Your task to perform on an android device: Search for the best gaming monitor on Best Buy Image 0: 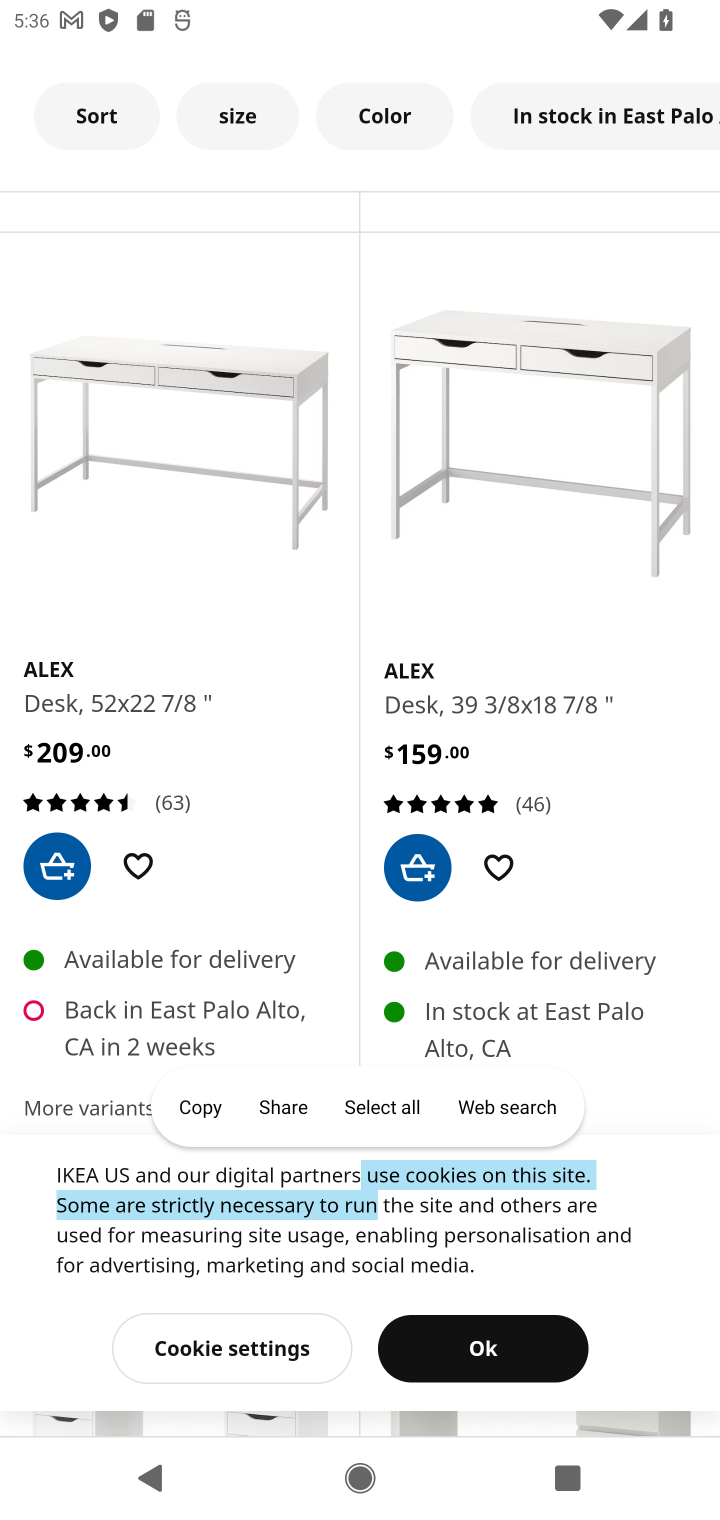
Step 0: press home button
Your task to perform on an android device: Search for the best gaming monitor on Best Buy Image 1: 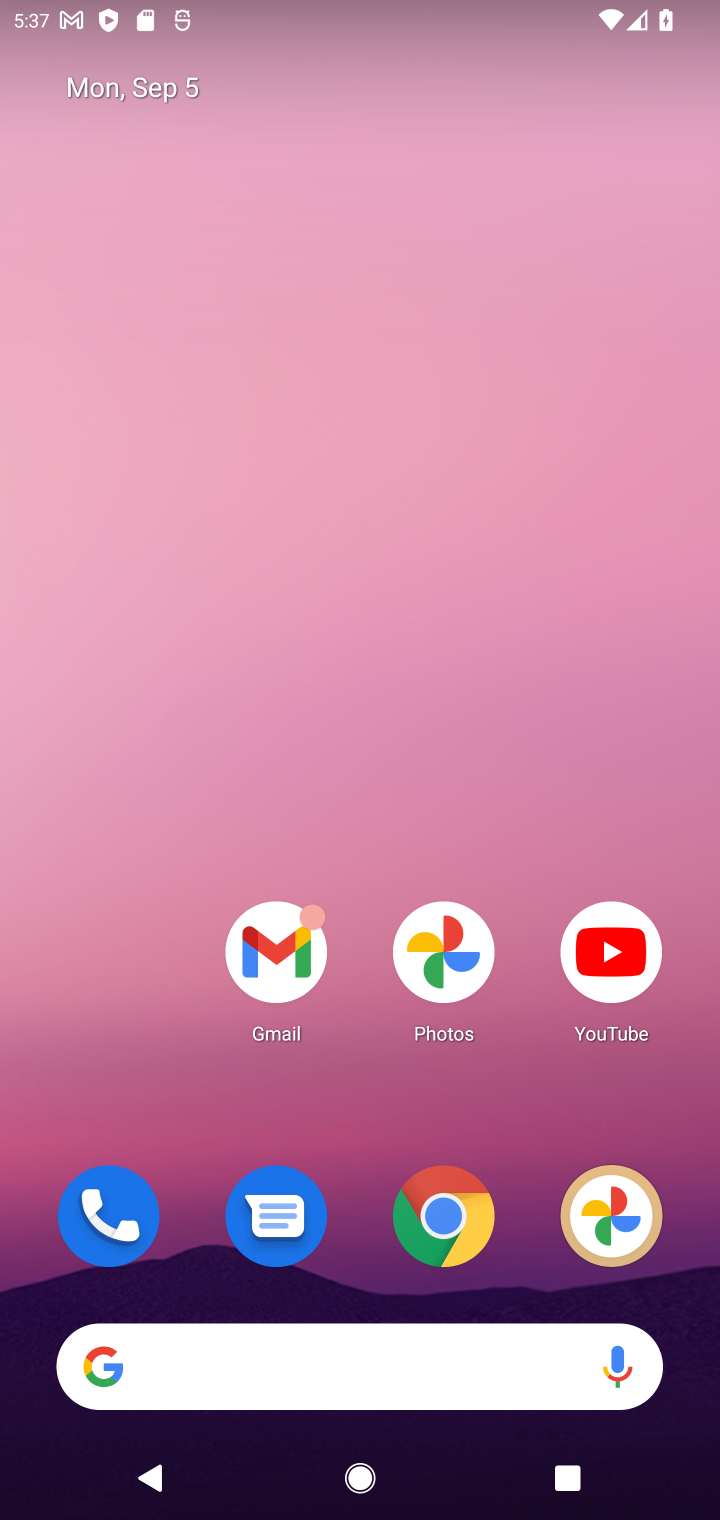
Step 1: drag from (352, 1133) to (437, 0)
Your task to perform on an android device: Search for the best gaming monitor on Best Buy Image 2: 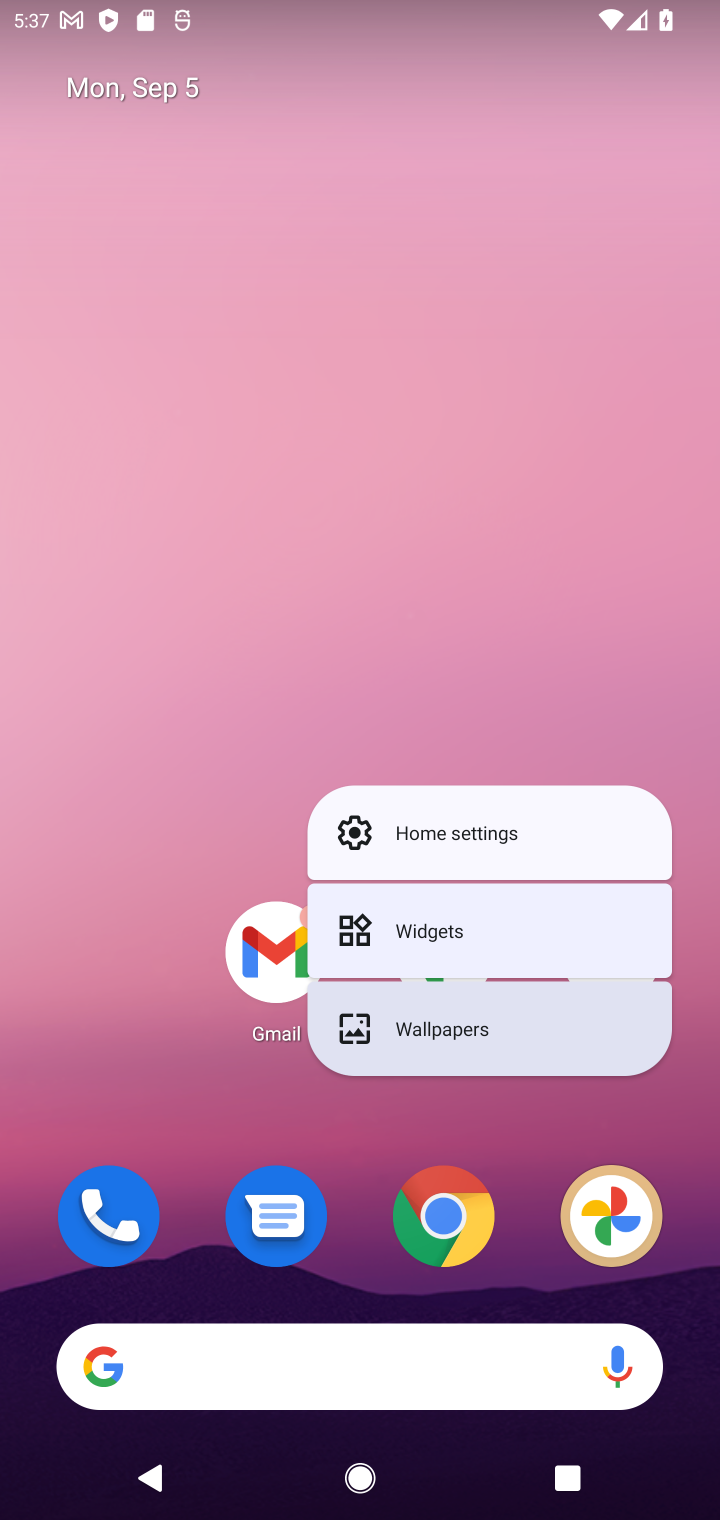
Step 2: click (160, 973)
Your task to perform on an android device: Search for the best gaming monitor on Best Buy Image 3: 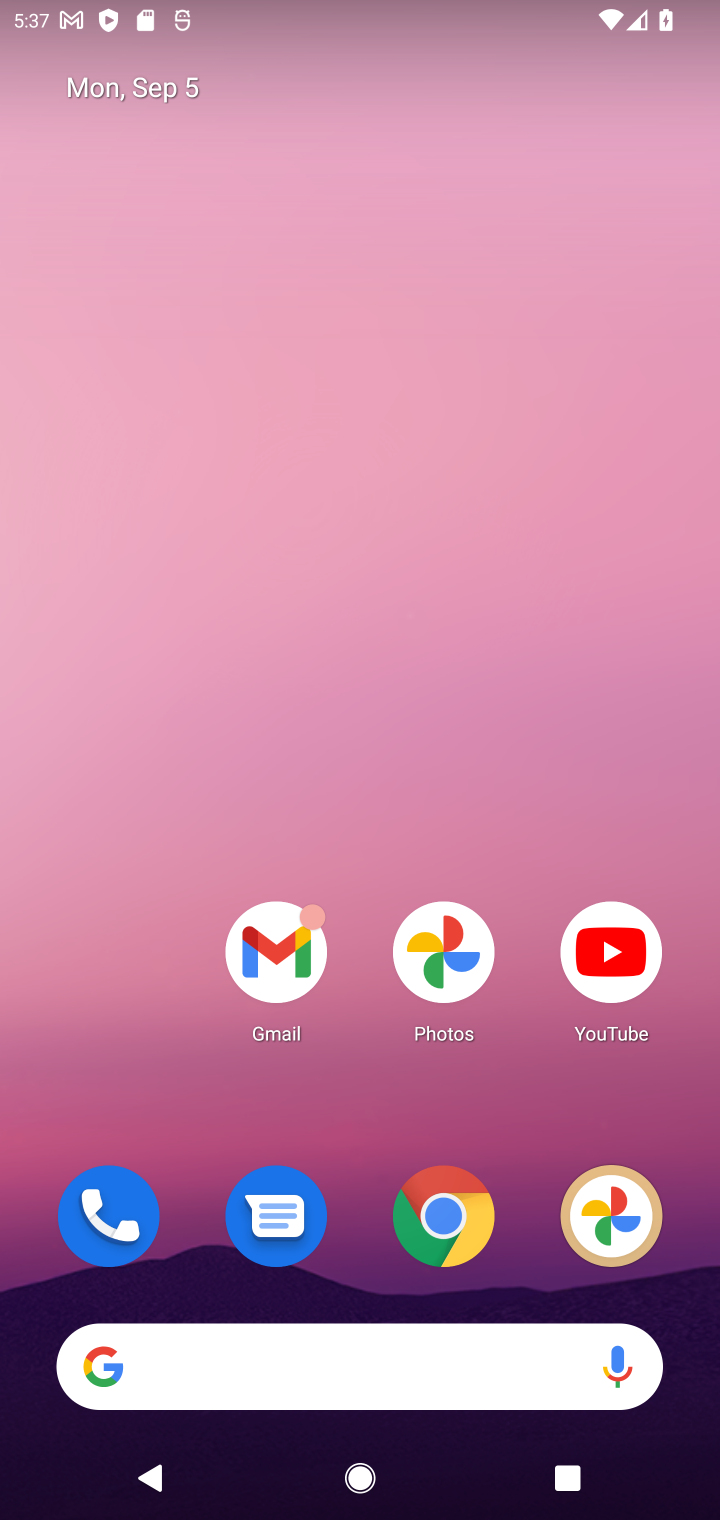
Step 3: drag from (368, 1160) to (354, 4)
Your task to perform on an android device: Search for the best gaming monitor on Best Buy Image 4: 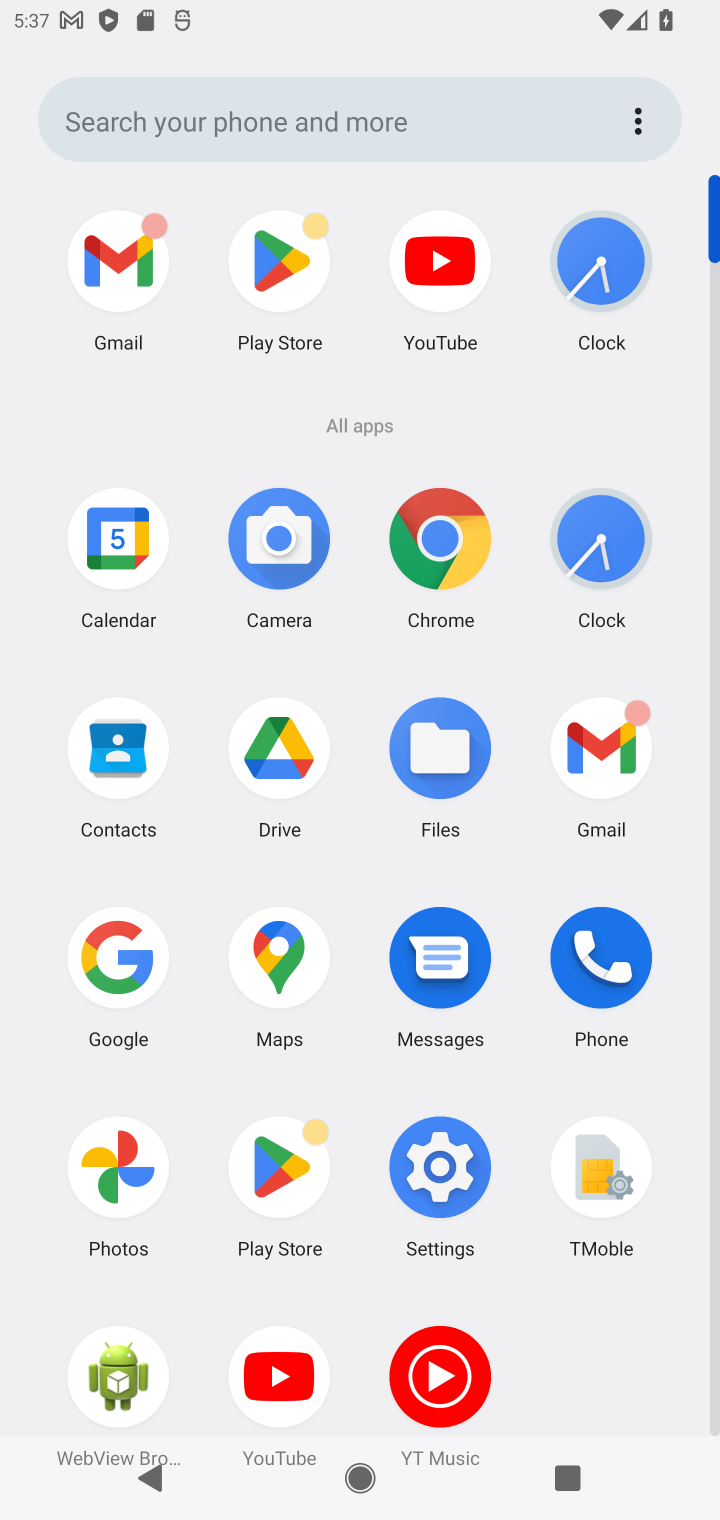
Step 4: click (440, 515)
Your task to perform on an android device: Search for the best gaming monitor on Best Buy Image 5: 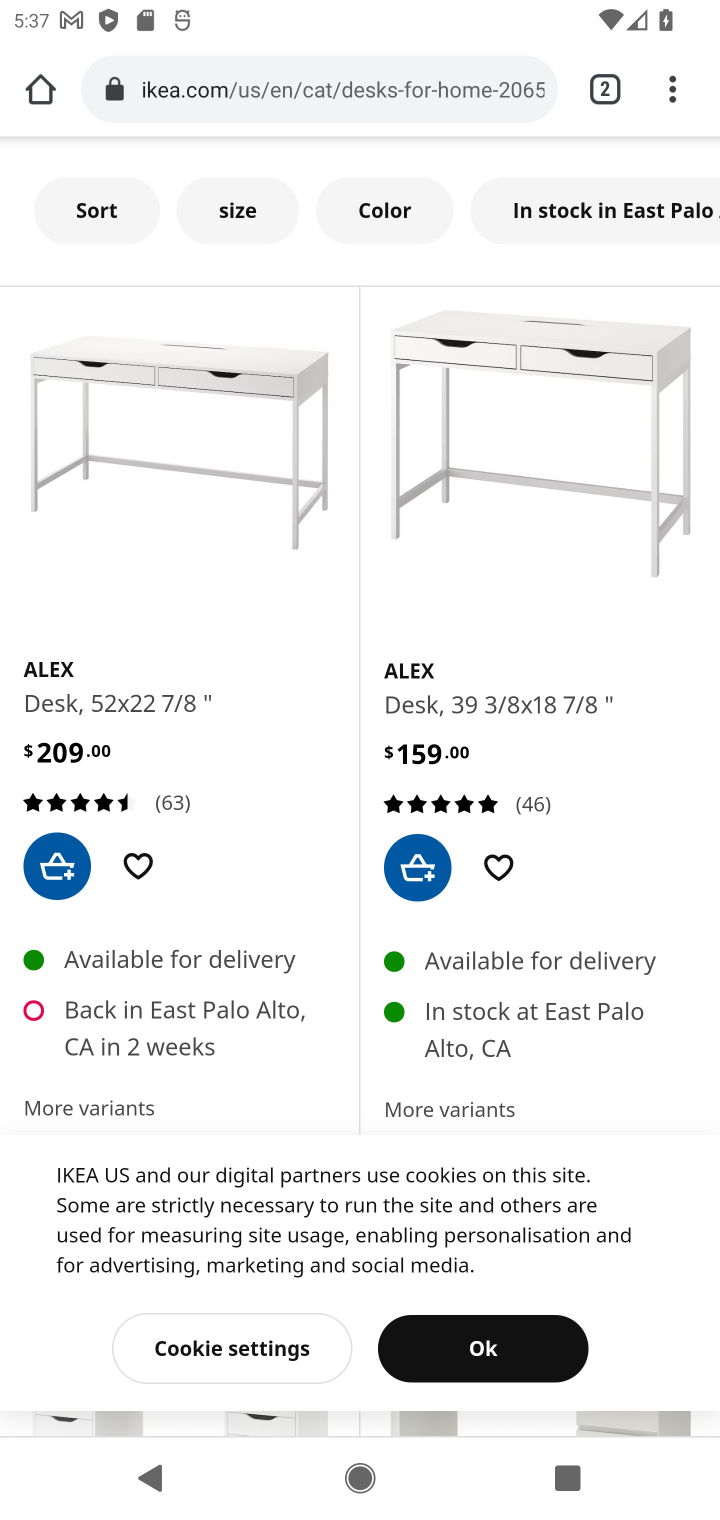
Step 5: click (599, 92)
Your task to perform on an android device: Search for the best gaming monitor on Best Buy Image 6: 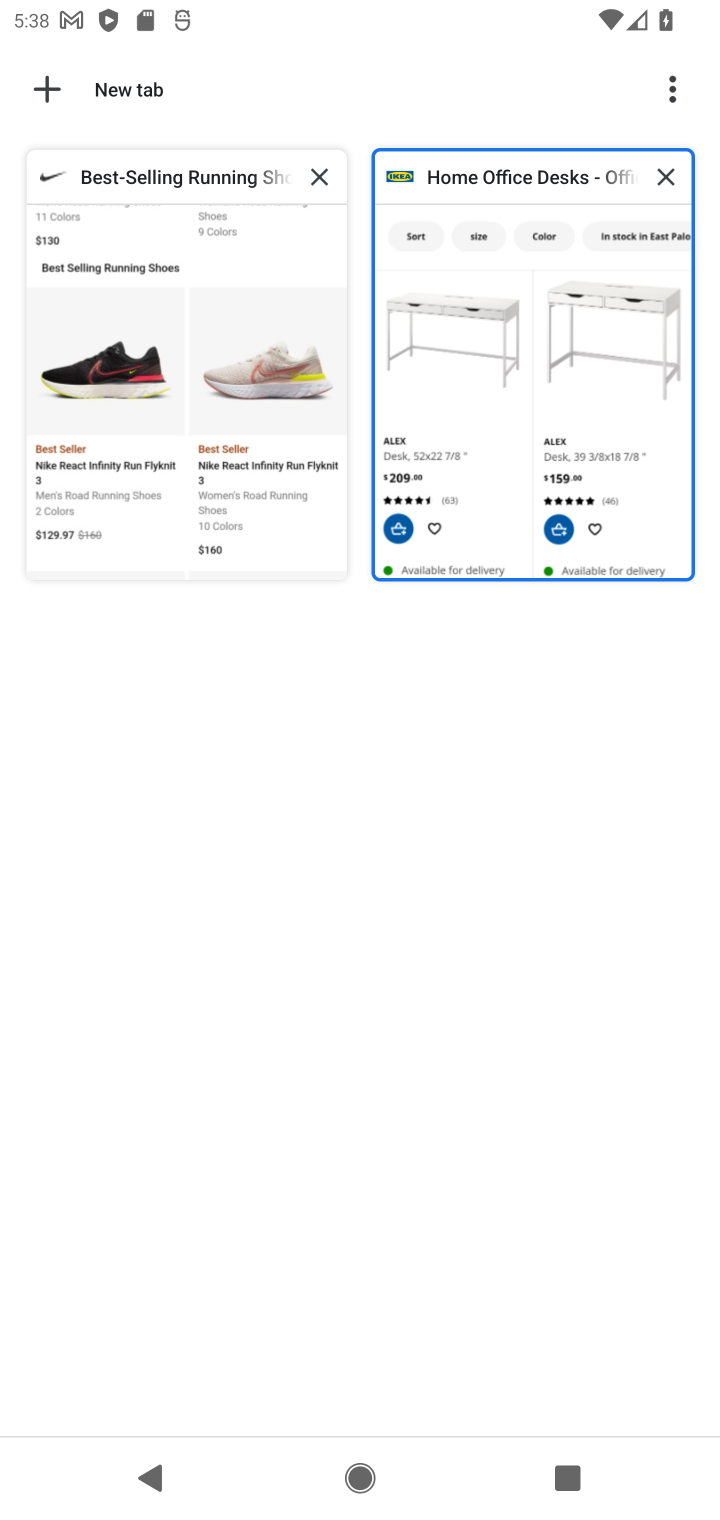
Step 6: click (664, 178)
Your task to perform on an android device: Search for the best gaming monitor on Best Buy Image 7: 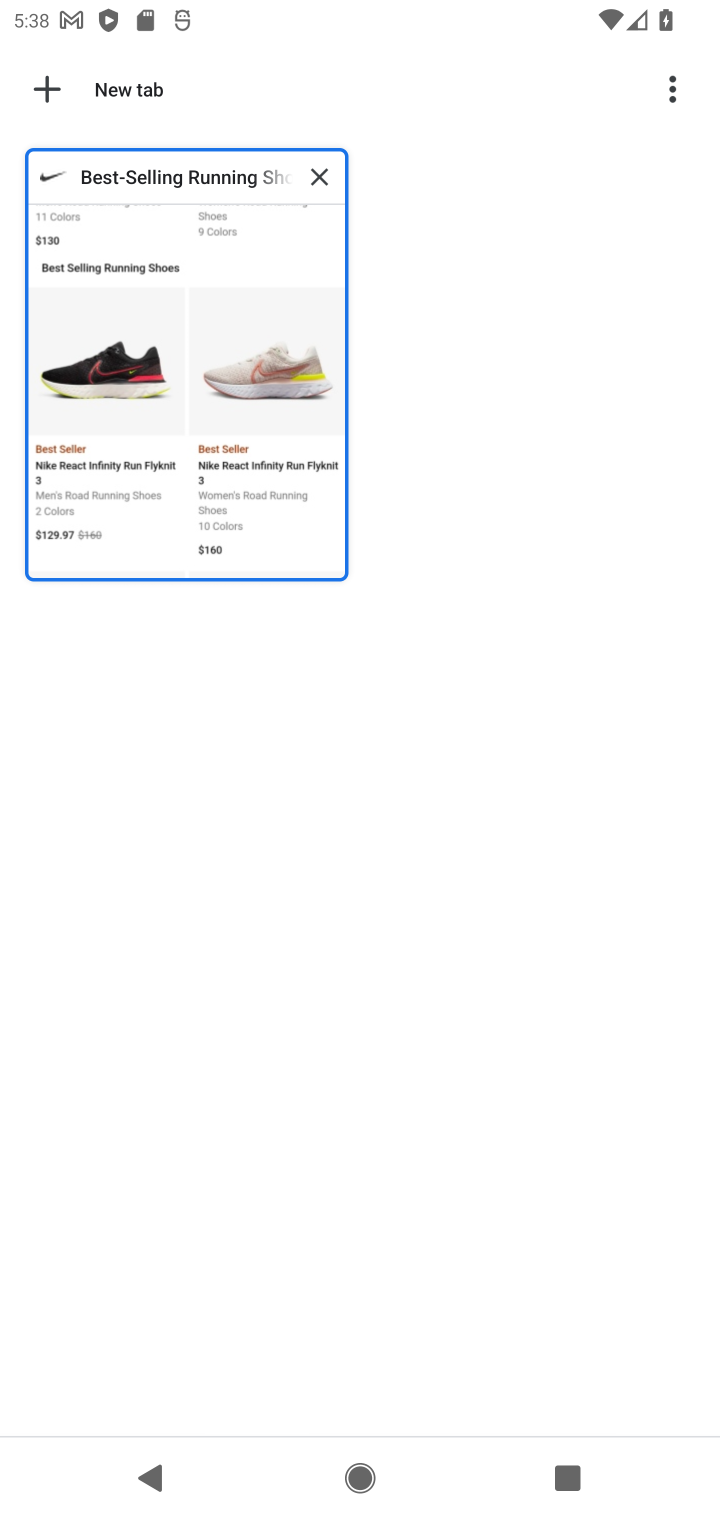
Step 7: click (320, 172)
Your task to perform on an android device: Search for the best gaming monitor on Best Buy Image 8: 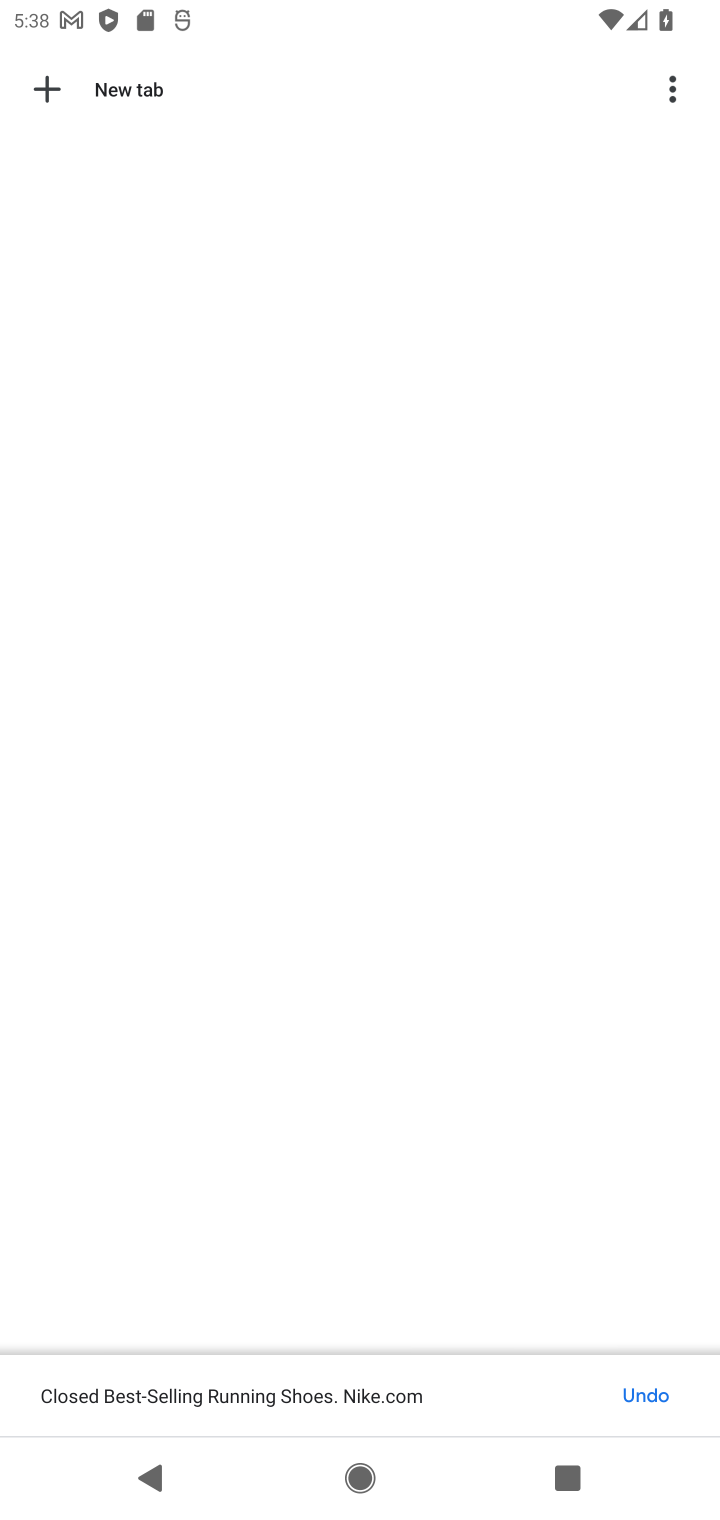
Step 8: click (35, 83)
Your task to perform on an android device: Search for the best gaming monitor on Best Buy Image 9: 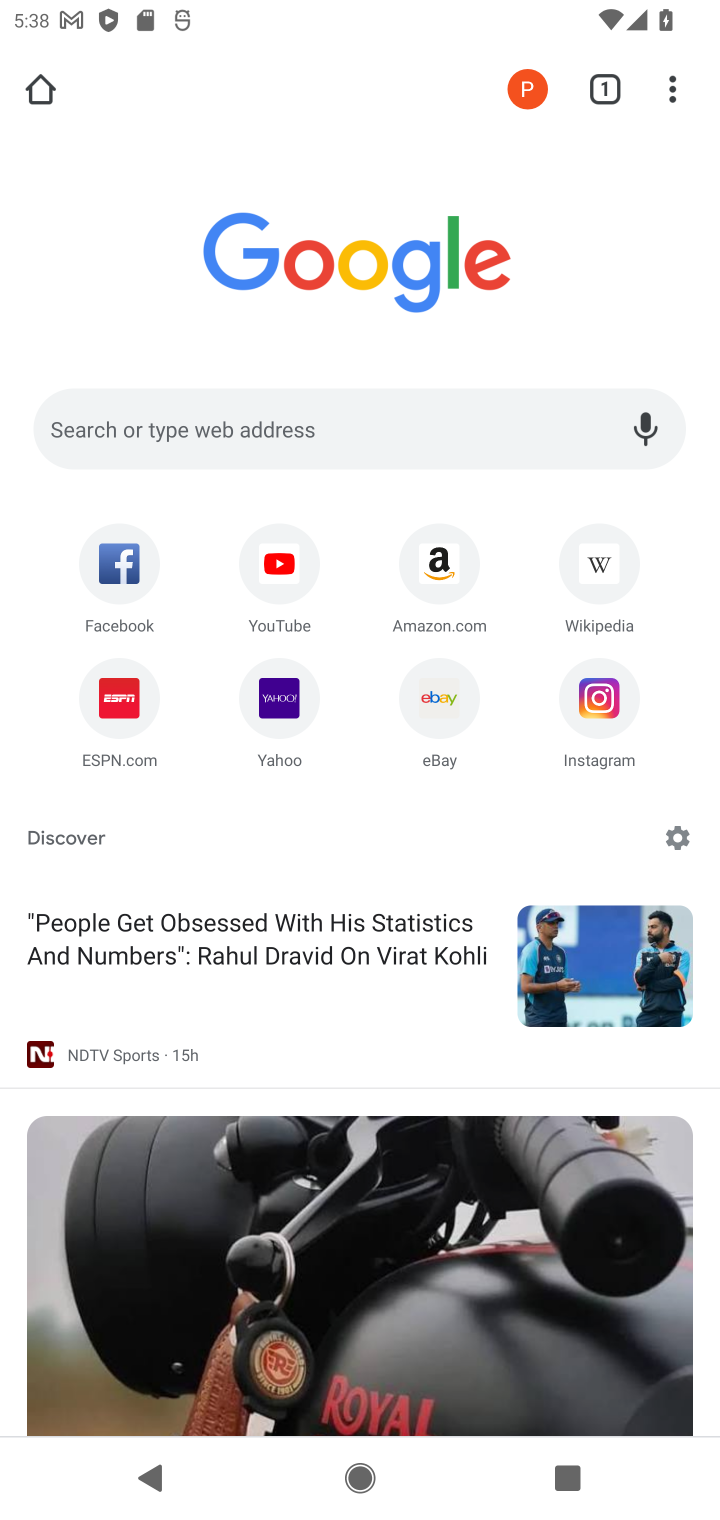
Step 9: click (178, 435)
Your task to perform on an android device: Search for the best gaming monitor on Best Buy Image 10: 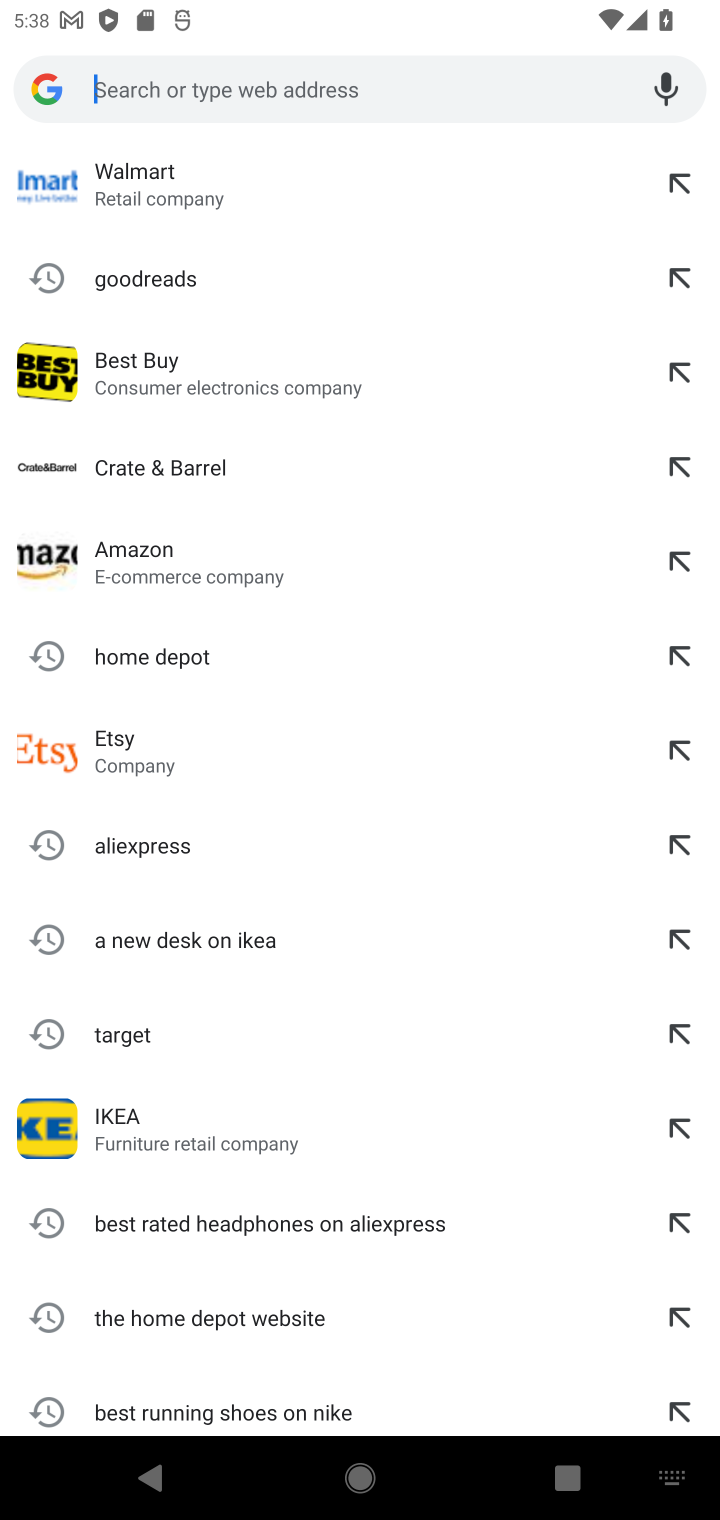
Step 10: type " best gaming monitor on Best Buy"
Your task to perform on an android device: Search for the best gaming monitor on Best Buy Image 11: 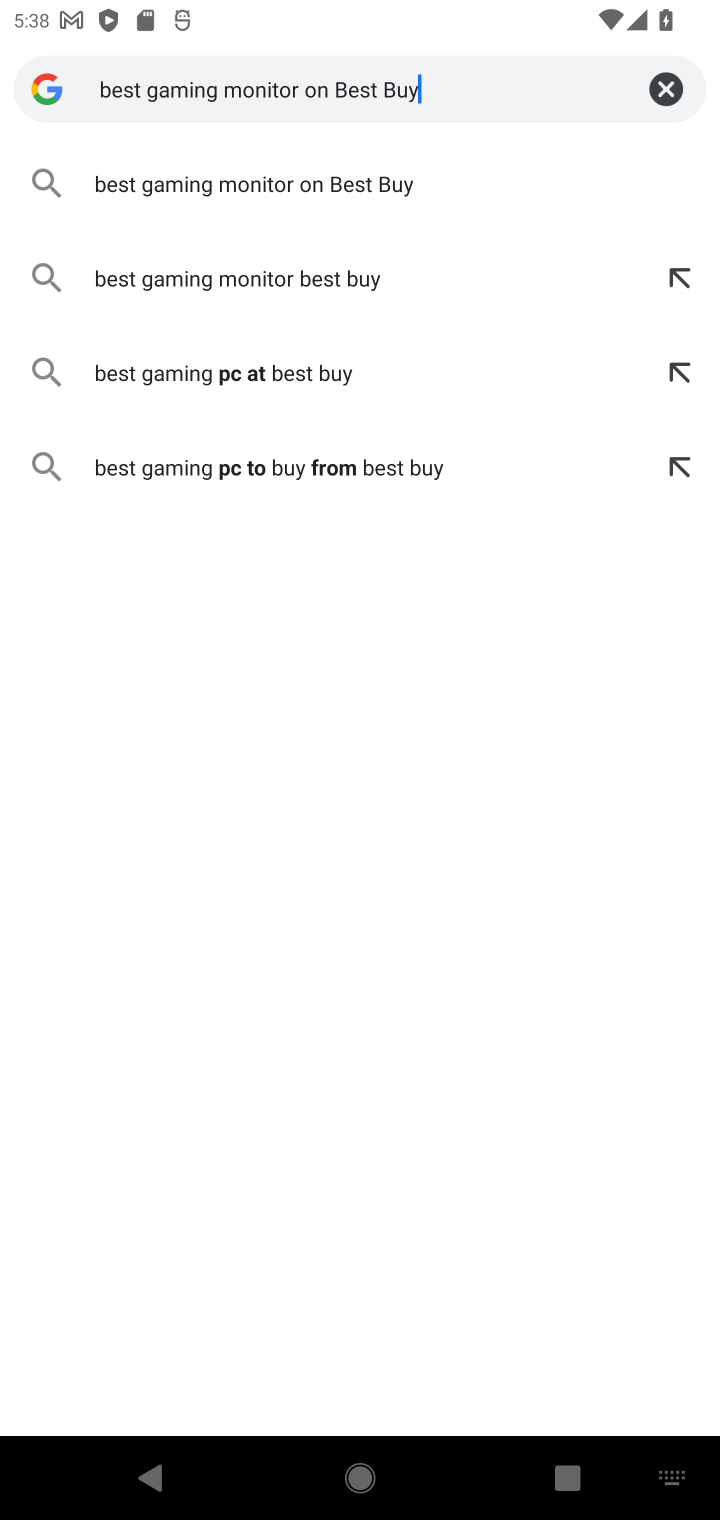
Step 11: click (321, 193)
Your task to perform on an android device: Search for the best gaming monitor on Best Buy Image 12: 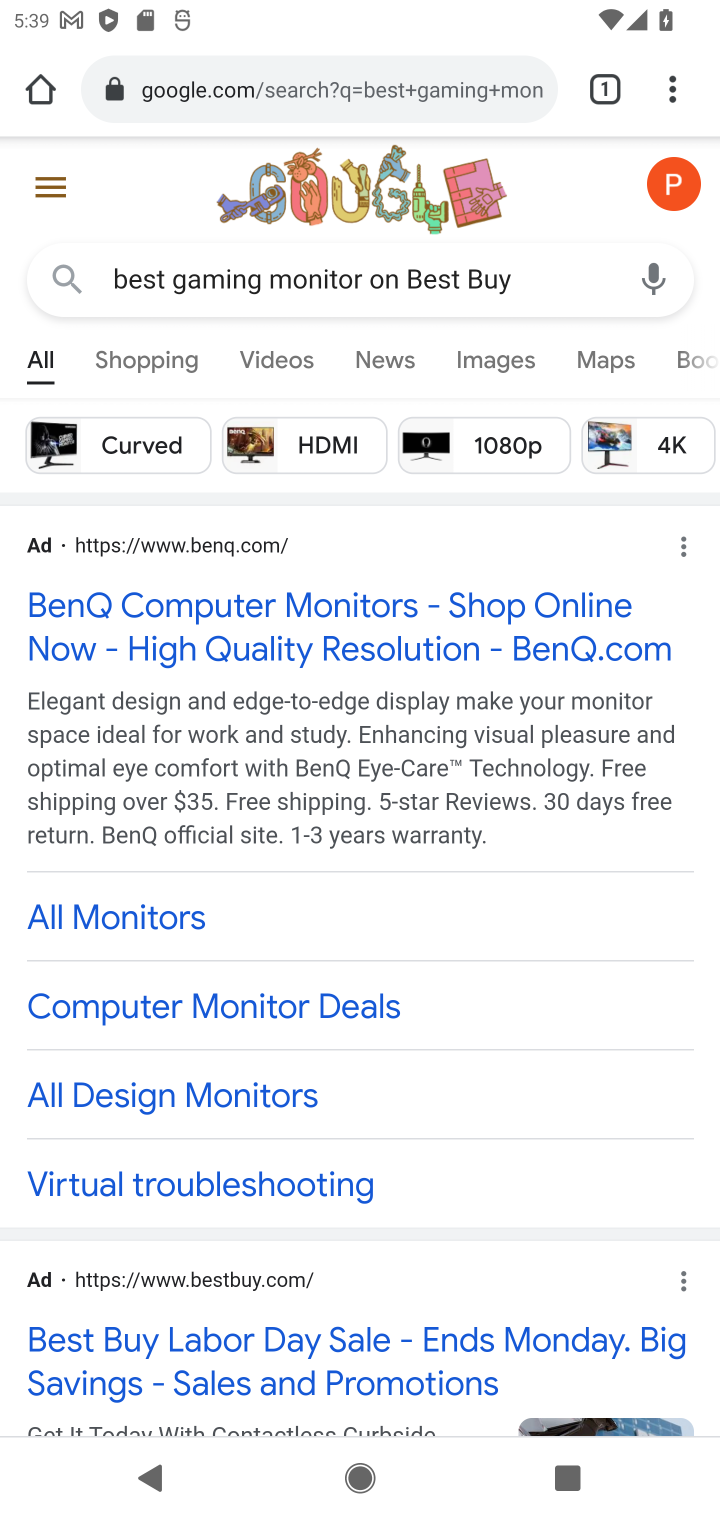
Step 12: drag from (343, 1347) to (344, 713)
Your task to perform on an android device: Search for the best gaming monitor on Best Buy Image 13: 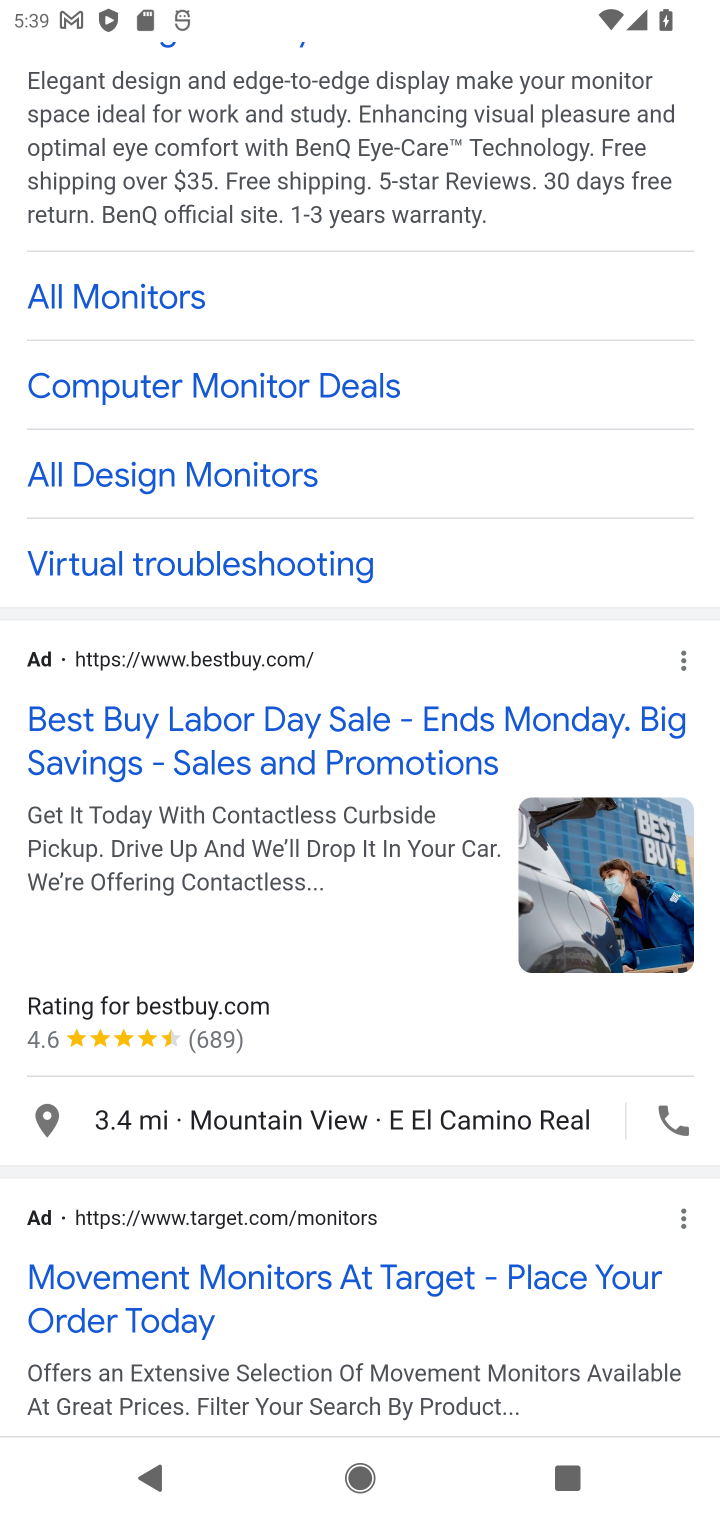
Step 13: drag from (427, 1235) to (326, 308)
Your task to perform on an android device: Search for the best gaming monitor on Best Buy Image 14: 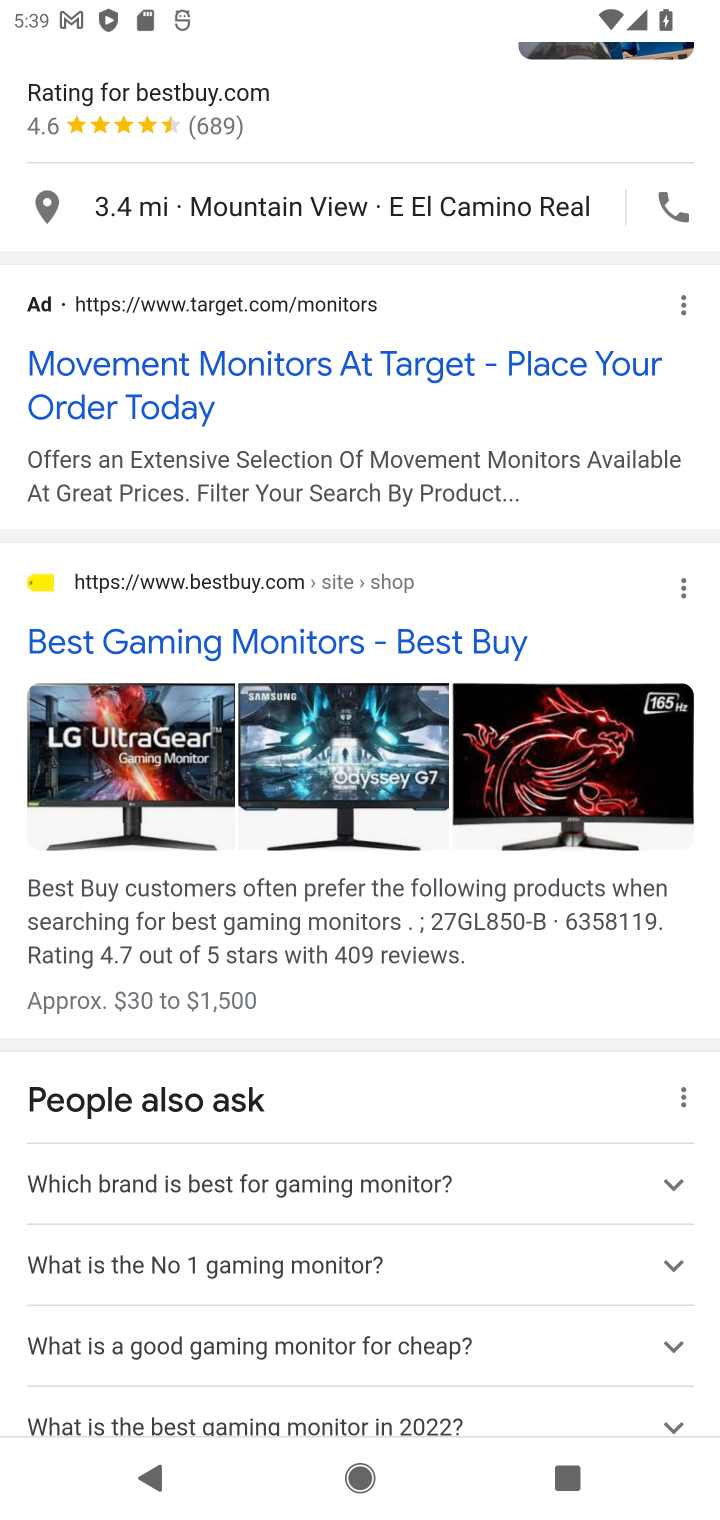
Step 14: click (306, 638)
Your task to perform on an android device: Search for the best gaming monitor on Best Buy Image 15: 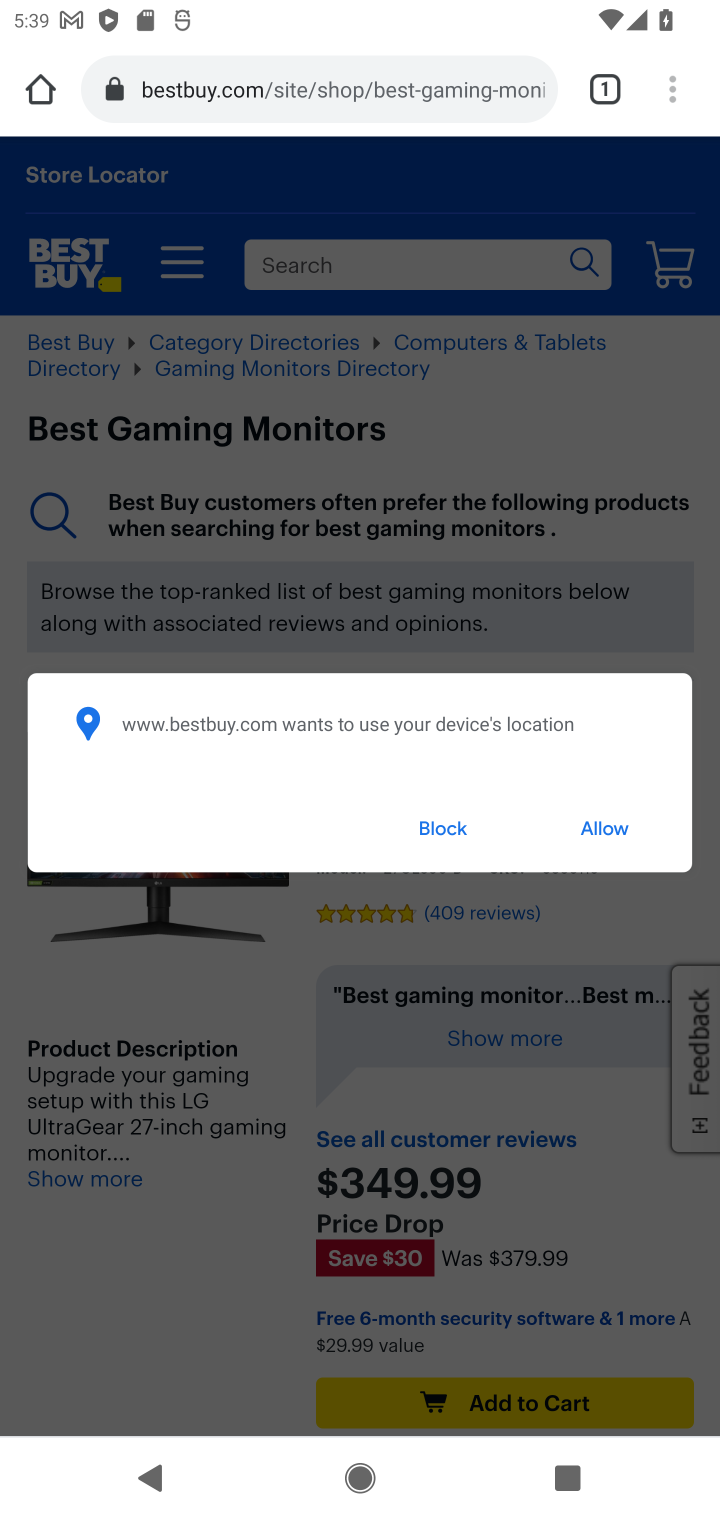
Step 15: click (591, 848)
Your task to perform on an android device: Search for the best gaming monitor on Best Buy Image 16: 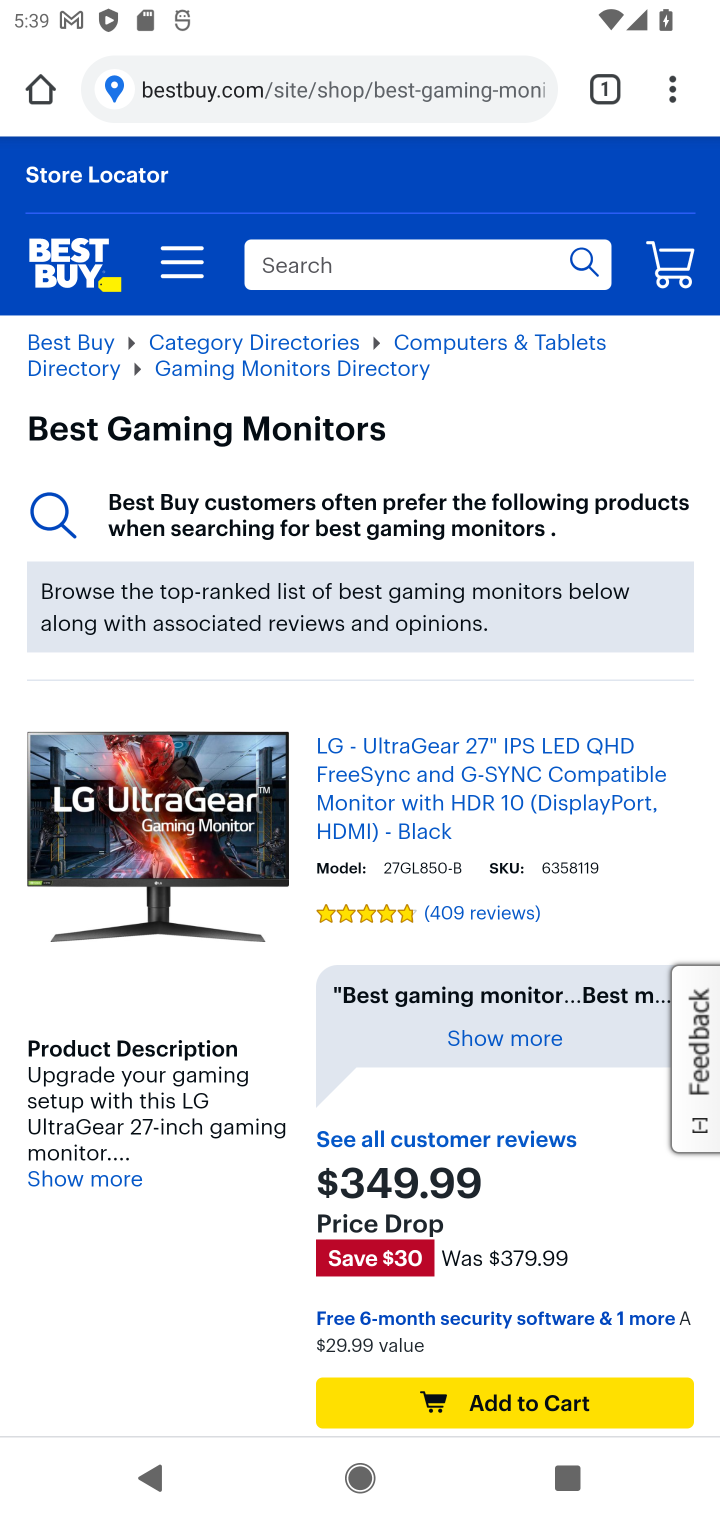
Step 16: click (348, 147)
Your task to perform on an android device: Search for the best gaming monitor on Best Buy Image 17: 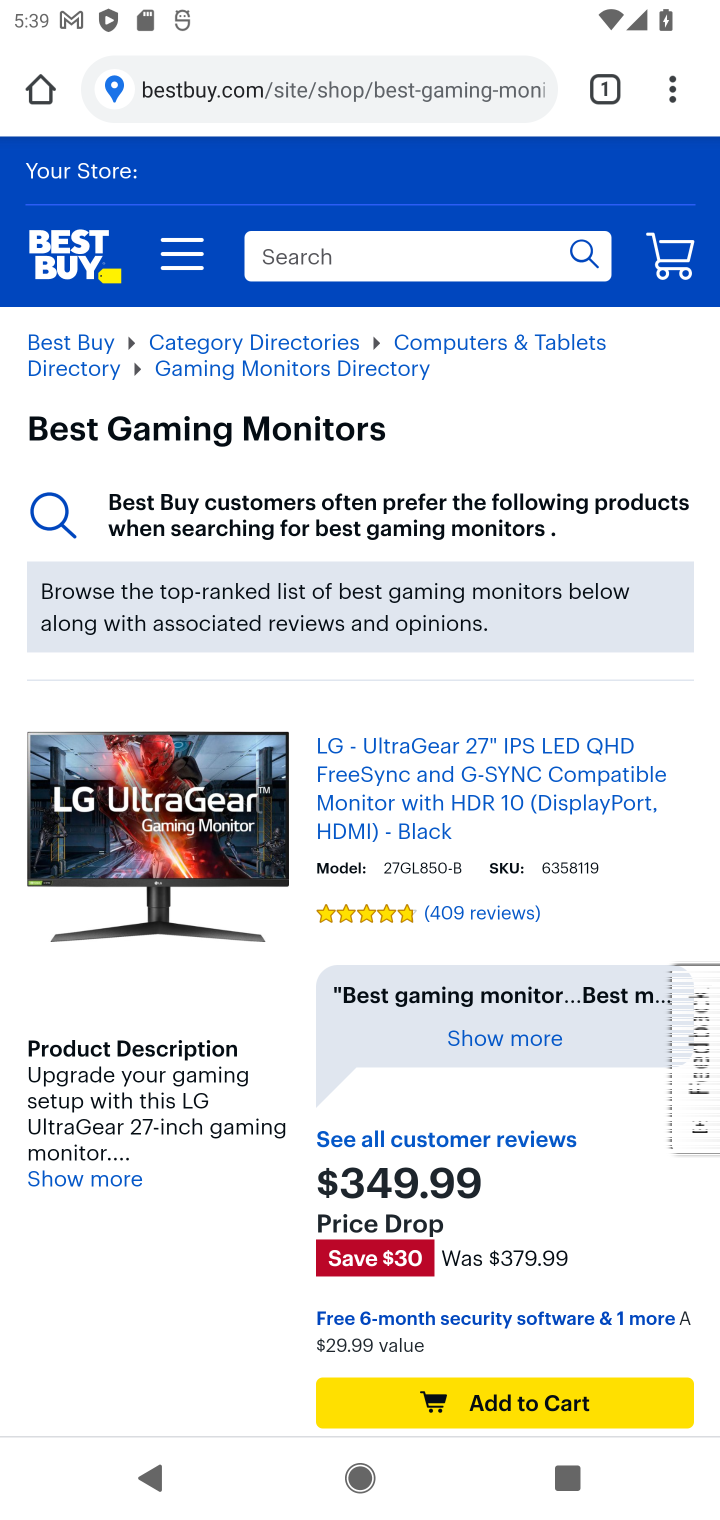
Step 17: click (346, 131)
Your task to perform on an android device: Search for the best gaming monitor on Best Buy Image 18: 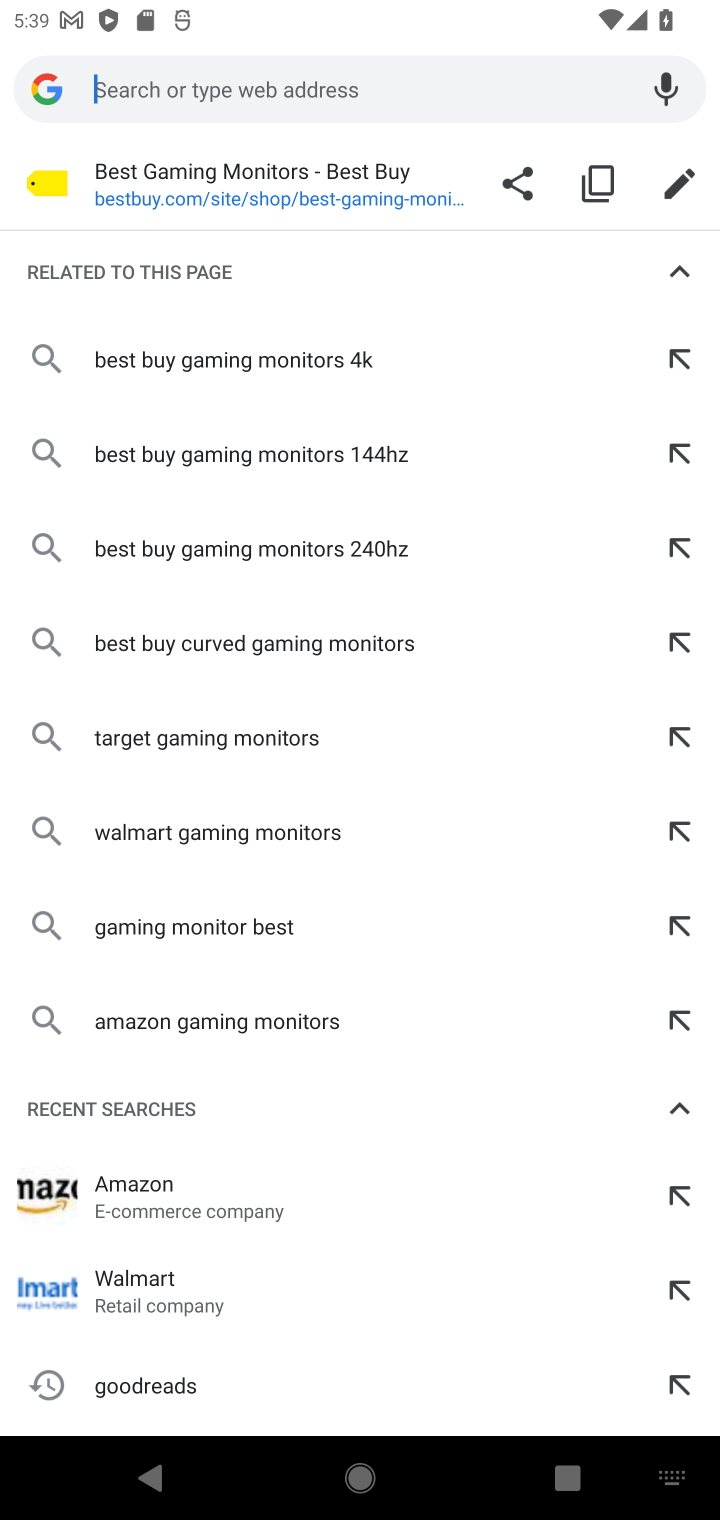
Step 18: click (266, 204)
Your task to perform on an android device: Search for the best gaming monitor on Best Buy Image 19: 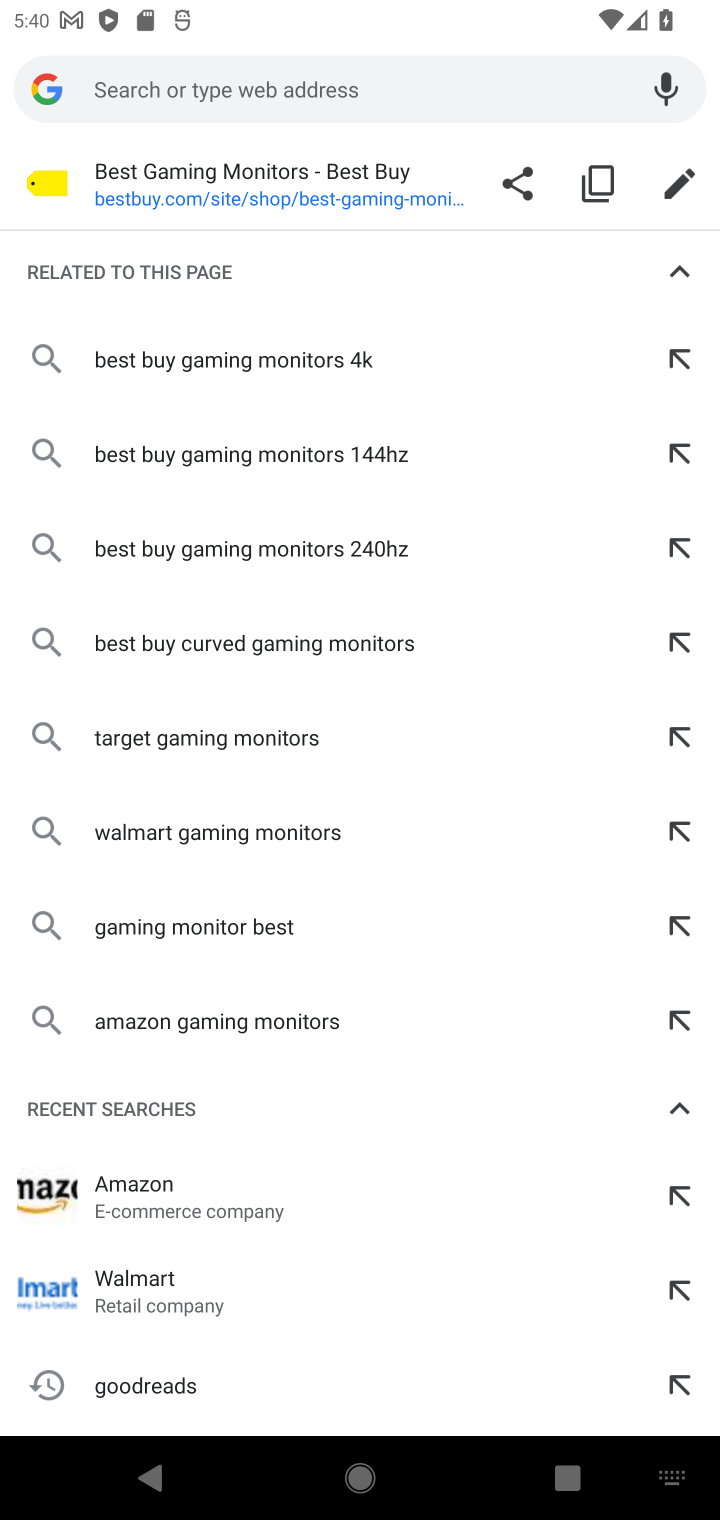
Step 19: click (244, 182)
Your task to perform on an android device: Search for the best gaming monitor on Best Buy Image 20: 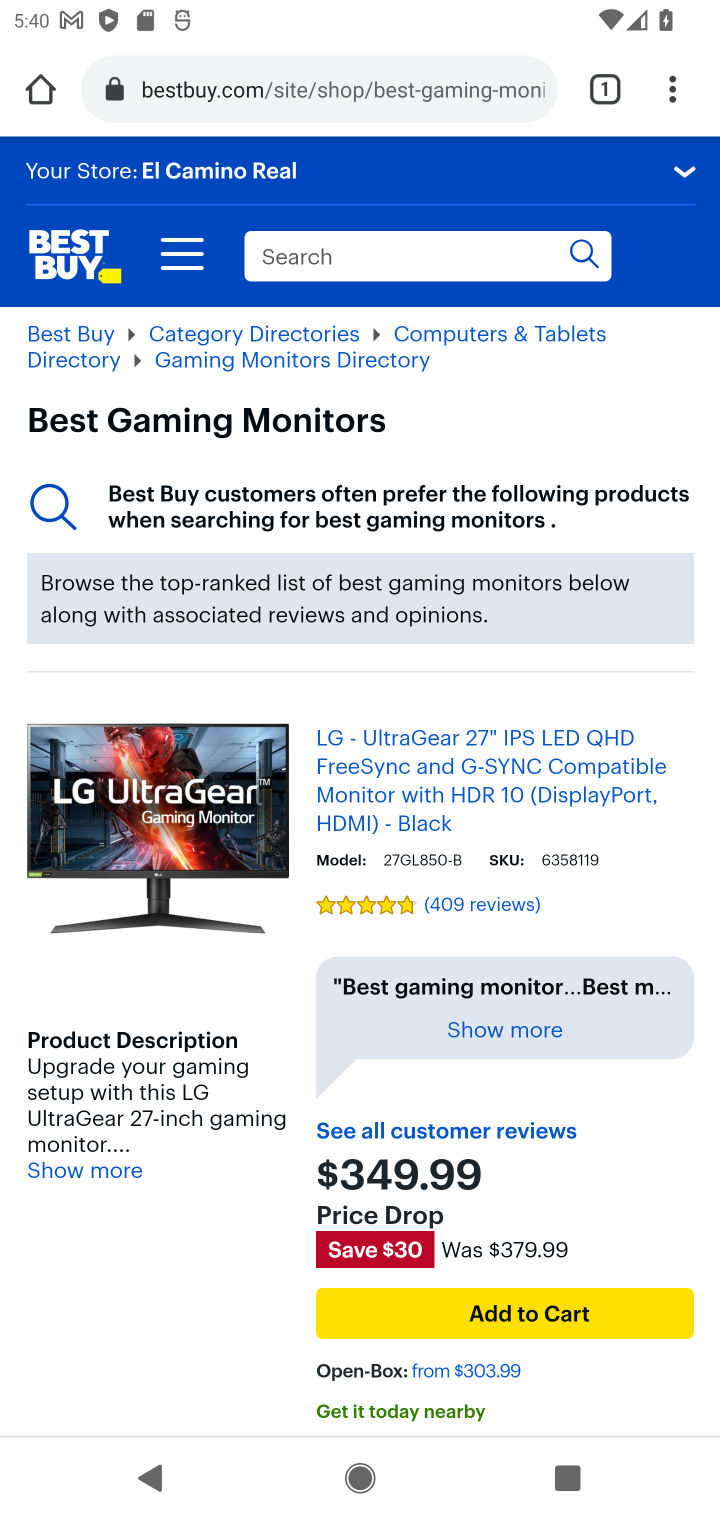
Step 20: task complete